Your task to perform on an android device: turn notification dots on Image 0: 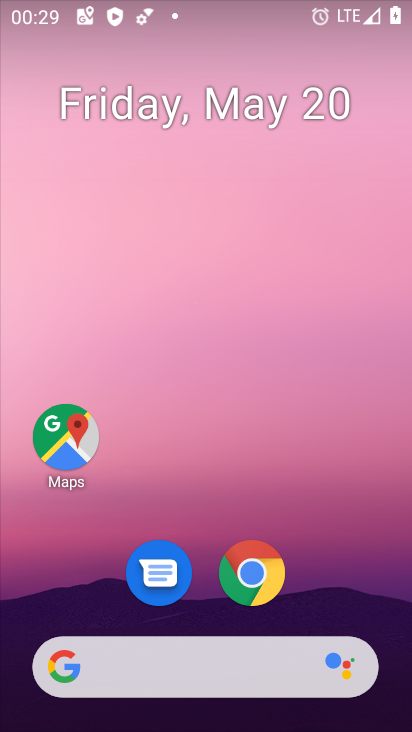
Step 0: drag from (203, 589) to (203, 263)
Your task to perform on an android device: turn notification dots on Image 1: 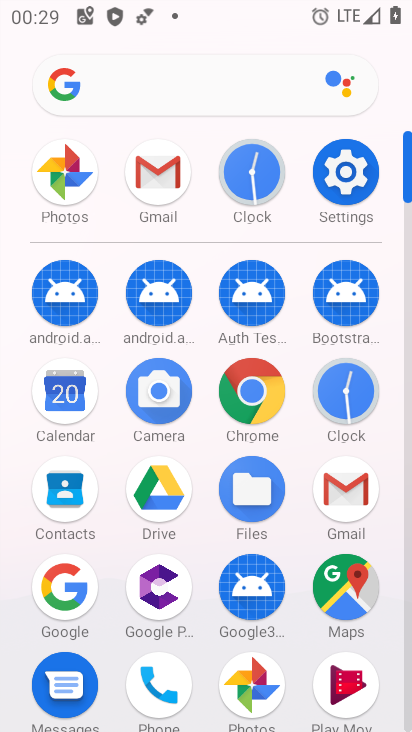
Step 1: click (329, 174)
Your task to perform on an android device: turn notification dots on Image 2: 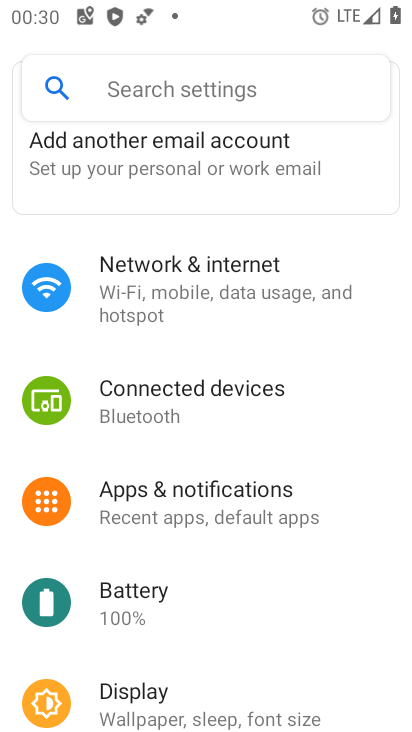
Step 2: click (220, 489)
Your task to perform on an android device: turn notification dots on Image 3: 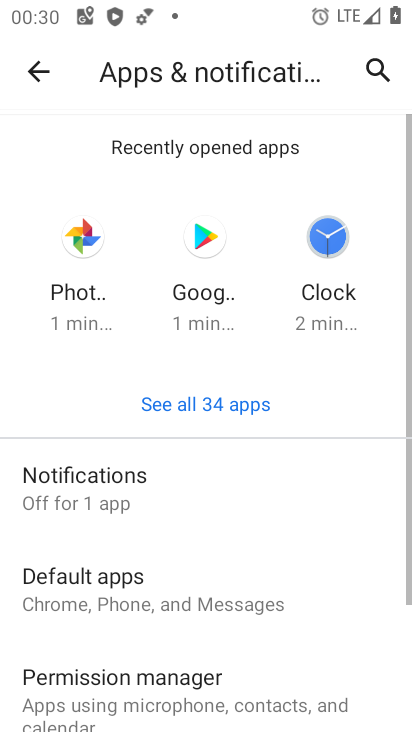
Step 3: click (161, 504)
Your task to perform on an android device: turn notification dots on Image 4: 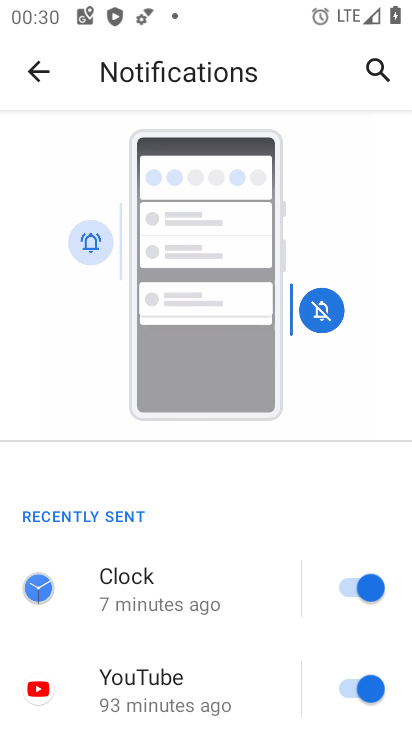
Step 4: drag from (228, 618) to (268, 120)
Your task to perform on an android device: turn notification dots on Image 5: 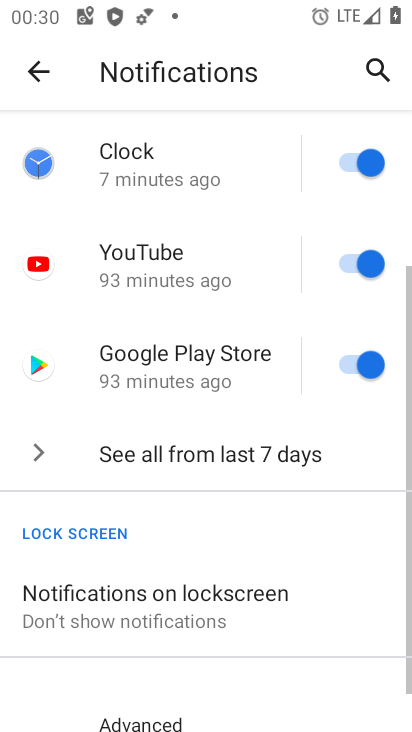
Step 5: drag from (276, 636) to (289, 377)
Your task to perform on an android device: turn notification dots on Image 6: 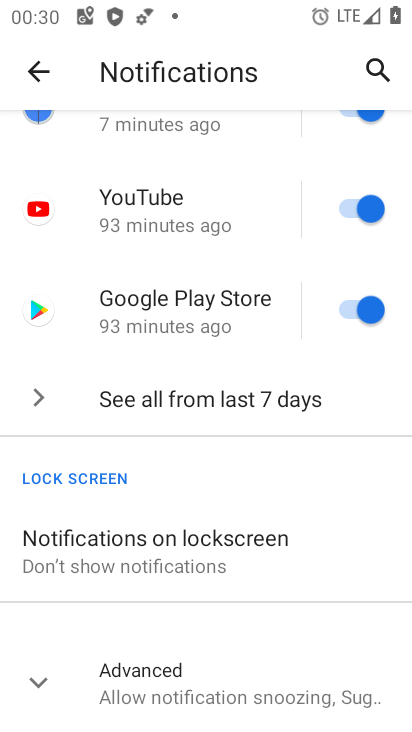
Step 6: drag from (183, 653) to (210, 480)
Your task to perform on an android device: turn notification dots on Image 7: 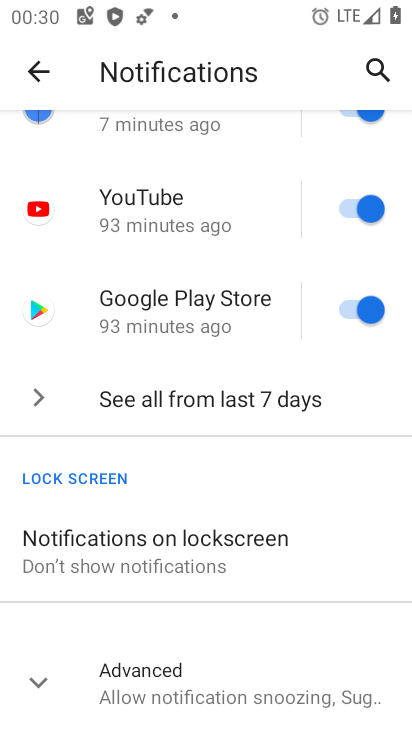
Step 7: click (184, 676)
Your task to perform on an android device: turn notification dots on Image 8: 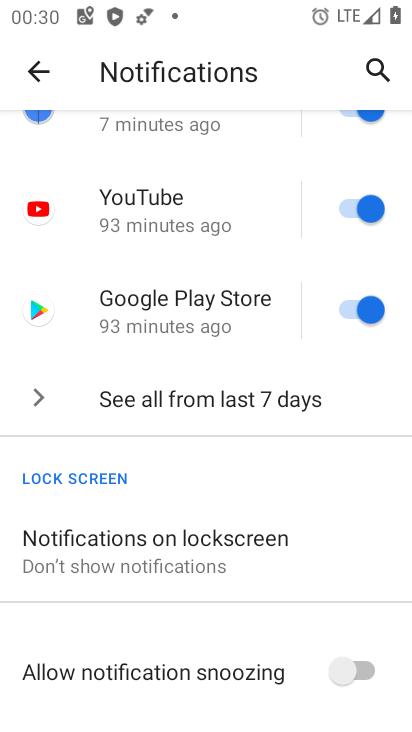
Step 8: drag from (266, 644) to (277, 330)
Your task to perform on an android device: turn notification dots on Image 9: 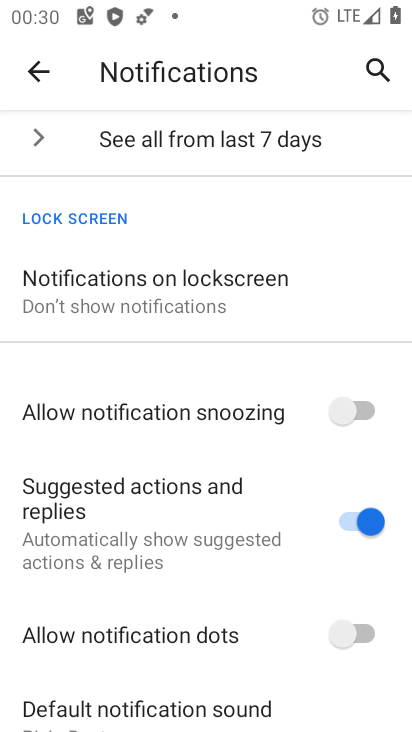
Step 9: click (371, 625)
Your task to perform on an android device: turn notification dots on Image 10: 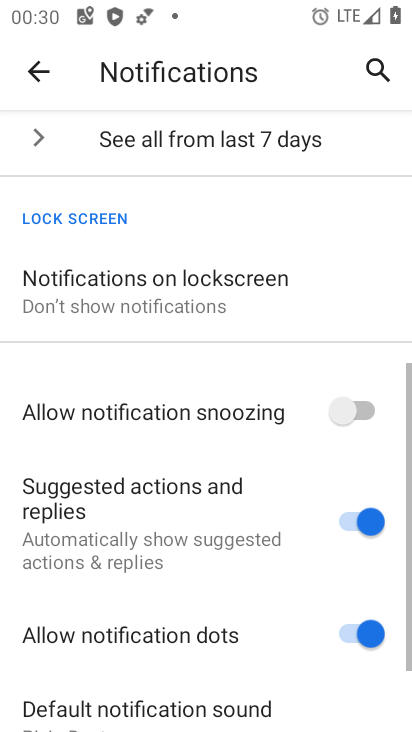
Step 10: task complete